Your task to perform on an android device: turn on improve location accuracy Image 0: 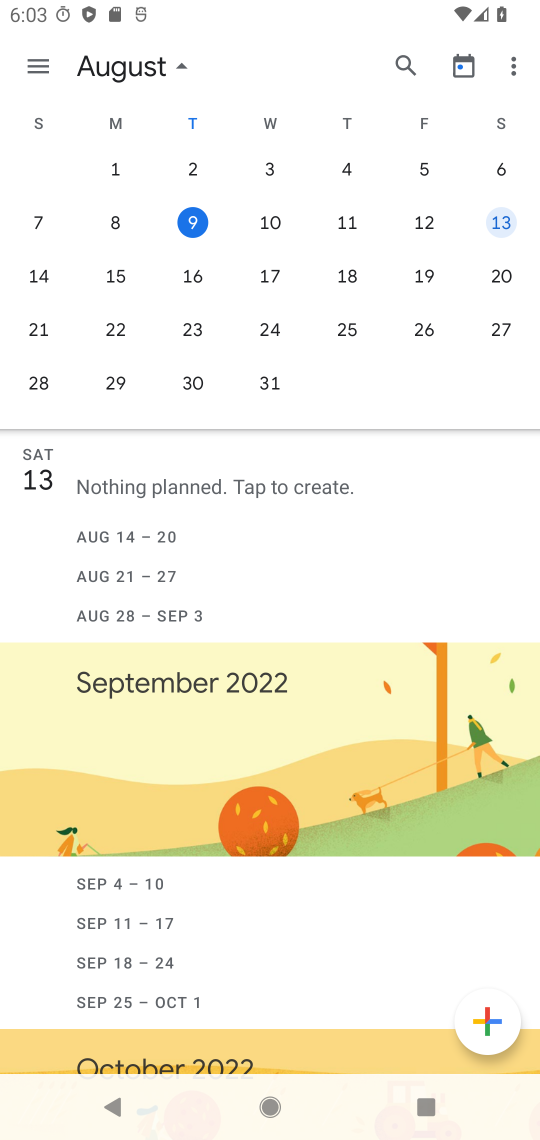
Step 0: press home button
Your task to perform on an android device: turn on improve location accuracy Image 1: 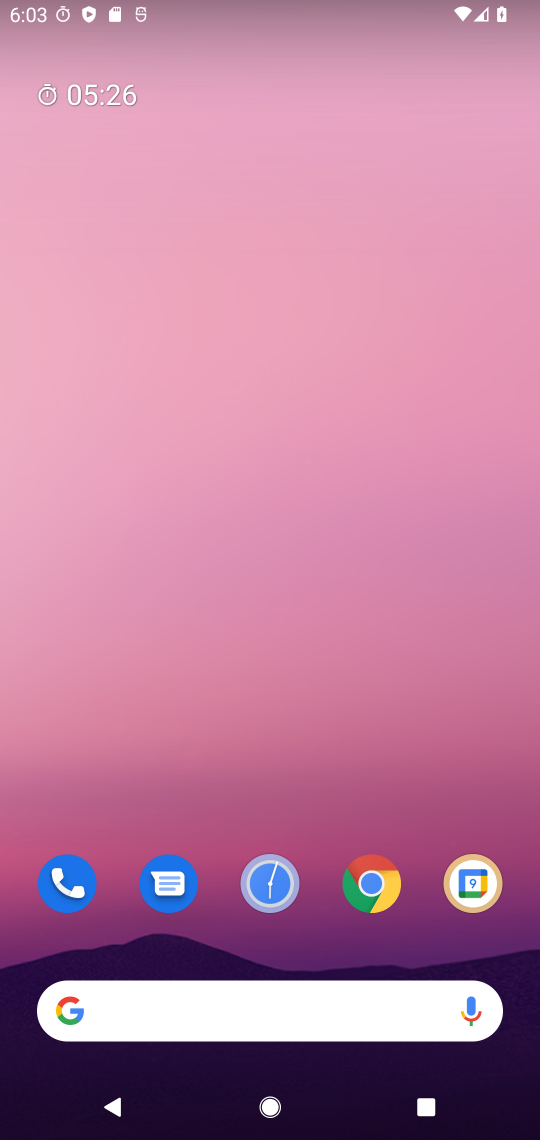
Step 1: drag from (272, 668) to (238, 247)
Your task to perform on an android device: turn on improve location accuracy Image 2: 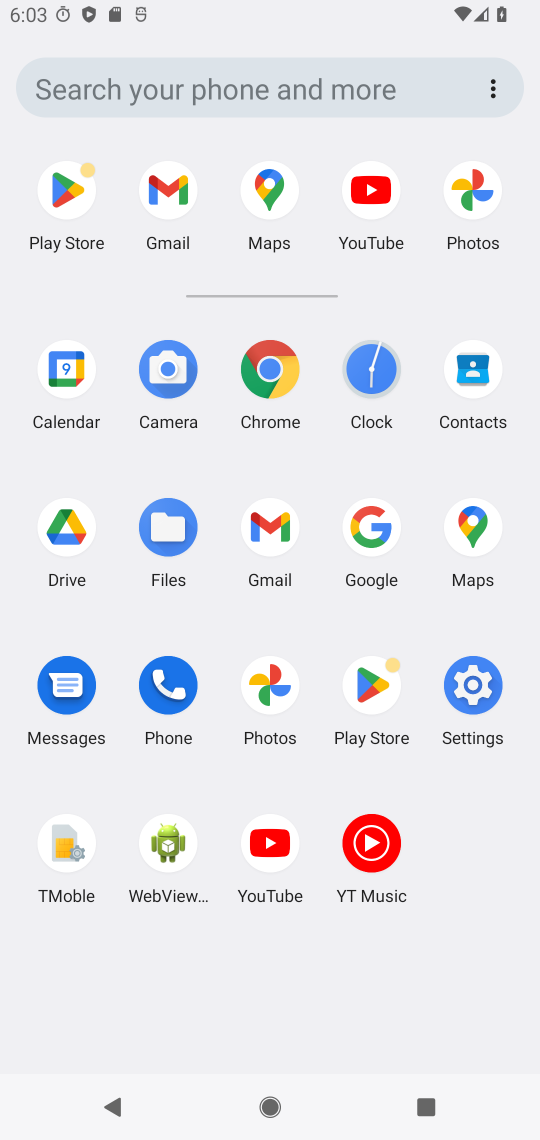
Step 2: click (464, 673)
Your task to perform on an android device: turn on improve location accuracy Image 3: 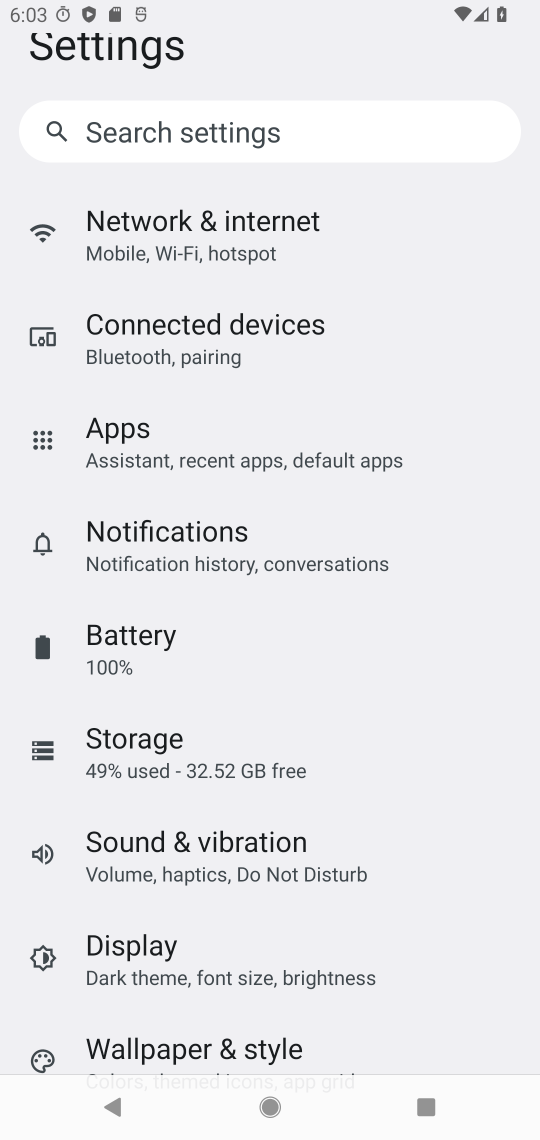
Step 3: drag from (224, 947) to (243, 450)
Your task to perform on an android device: turn on improve location accuracy Image 4: 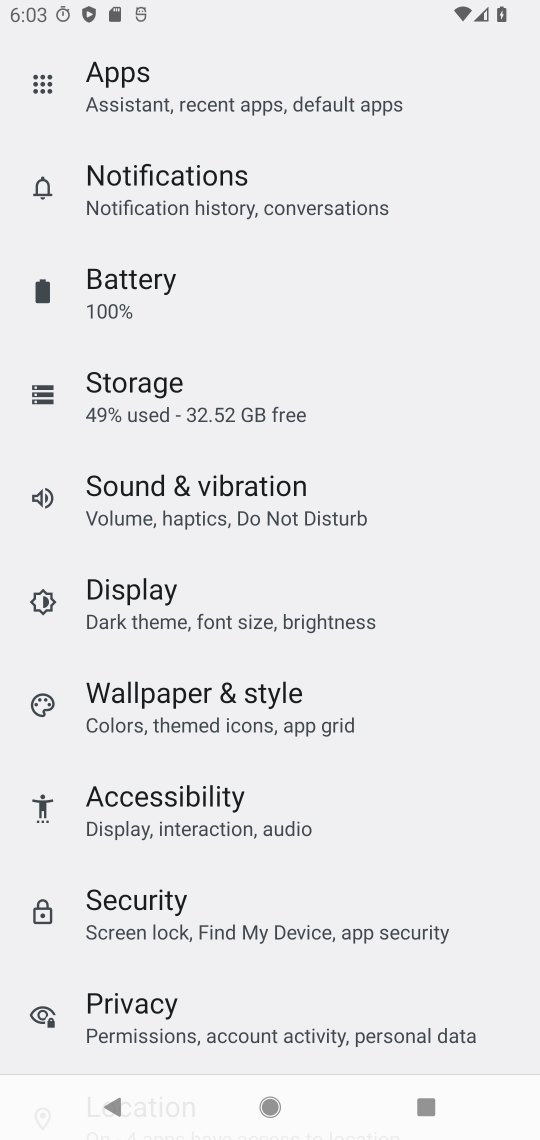
Step 4: drag from (266, 863) to (294, 346)
Your task to perform on an android device: turn on improve location accuracy Image 5: 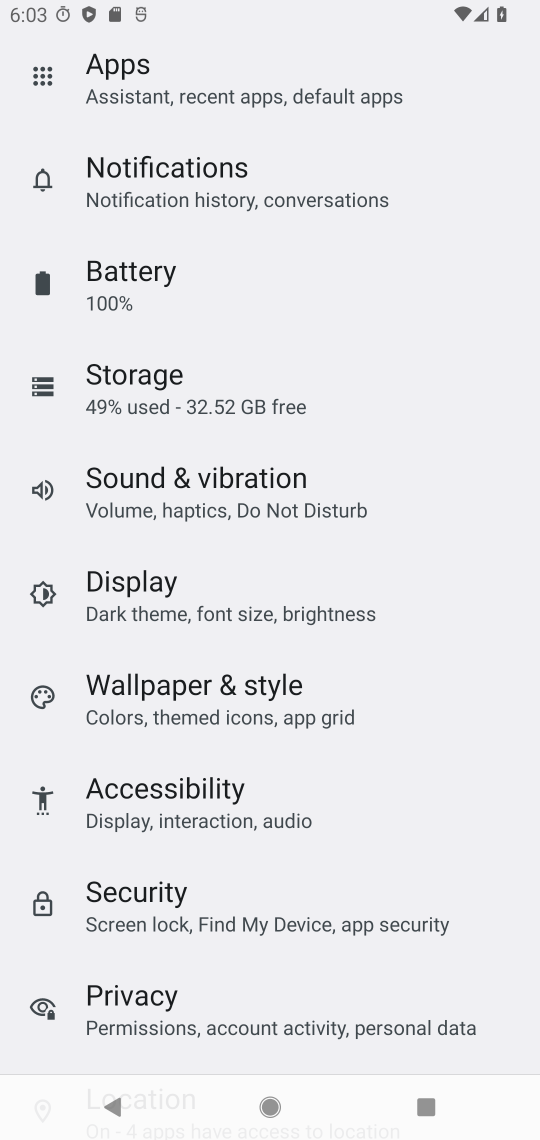
Step 5: drag from (263, 745) to (263, 274)
Your task to perform on an android device: turn on improve location accuracy Image 6: 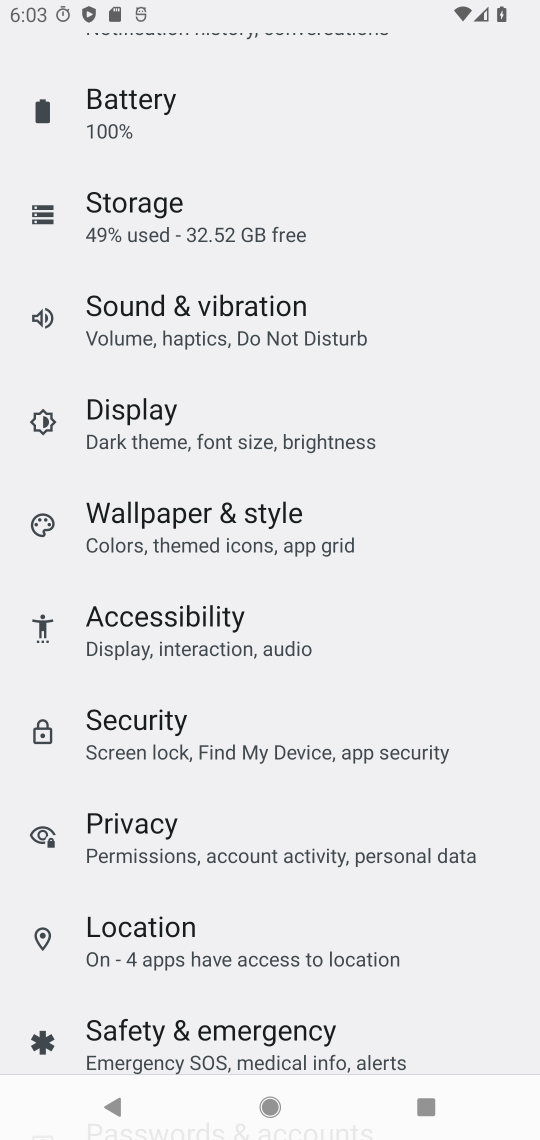
Step 6: click (199, 919)
Your task to perform on an android device: turn on improve location accuracy Image 7: 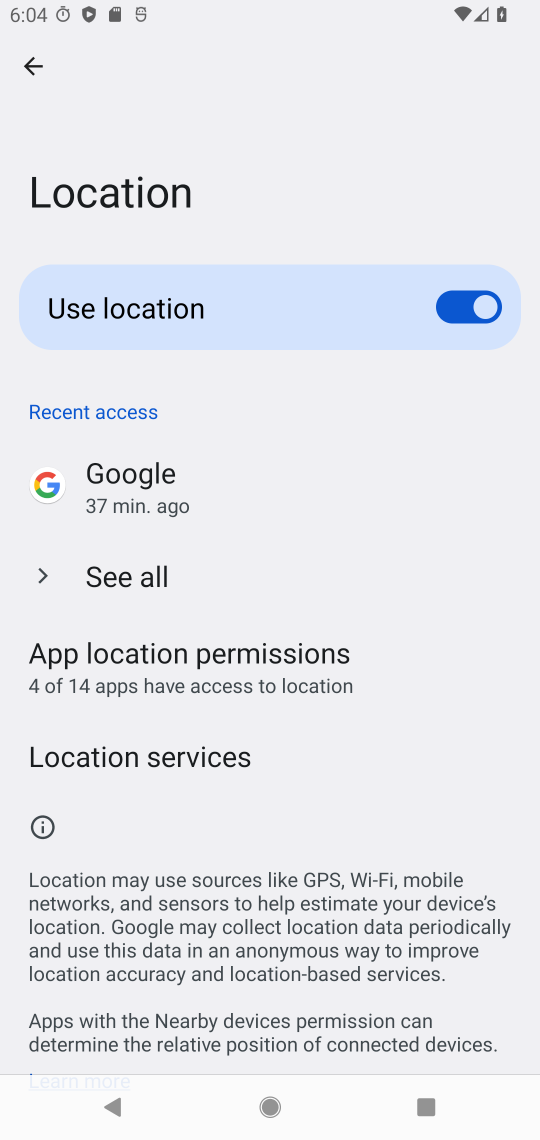
Step 7: click (194, 772)
Your task to perform on an android device: turn on improve location accuracy Image 8: 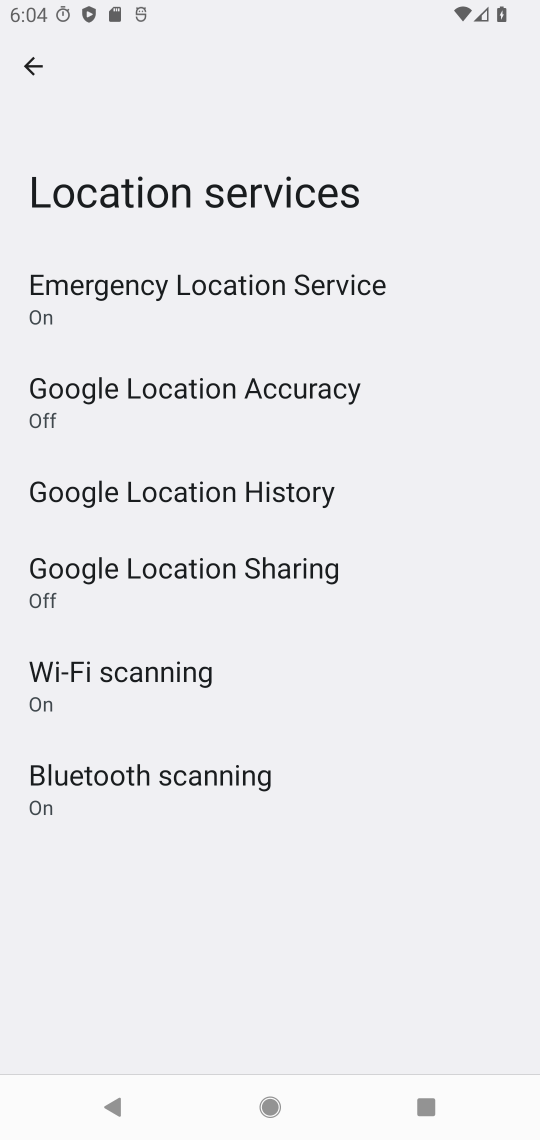
Step 8: click (304, 395)
Your task to perform on an android device: turn on improve location accuracy Image 9: 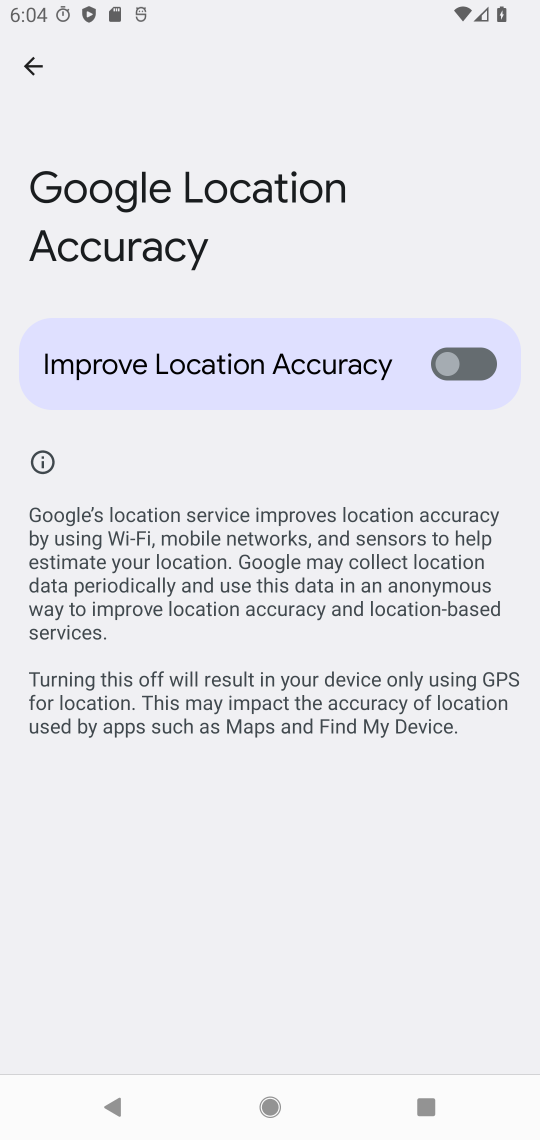
Step 9: click (467, 368)
Your task to perform on an android device: turn on improve location accuracy Image 10: 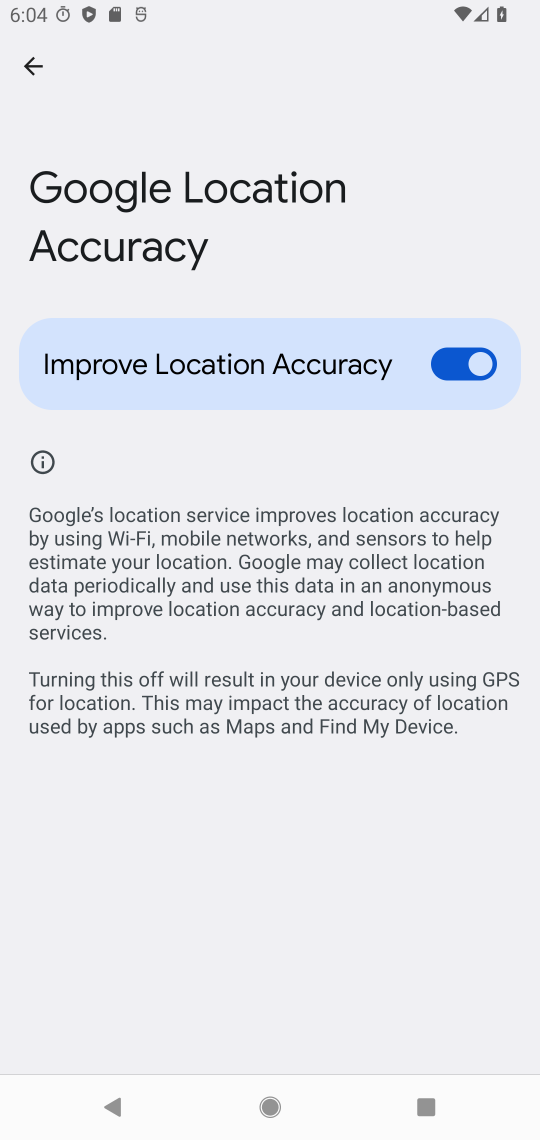
Step 10: task complete